Your task to perform on an android device: Open CNN.com Image 0: 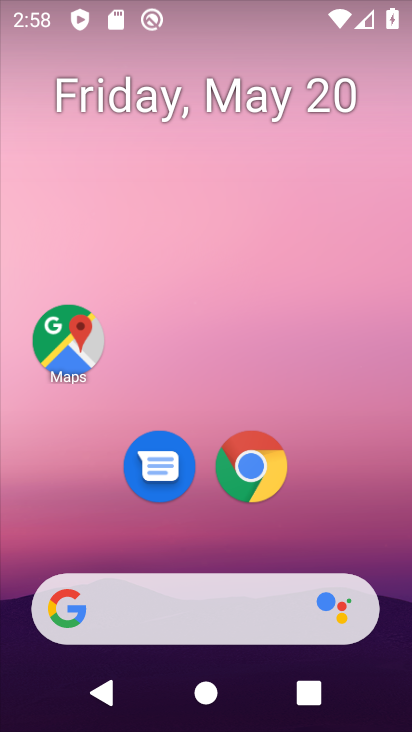
Step 0: drag from (293, 397) to (322, 183)
Your task to perform on an android device: Open CNN.com Image 1: 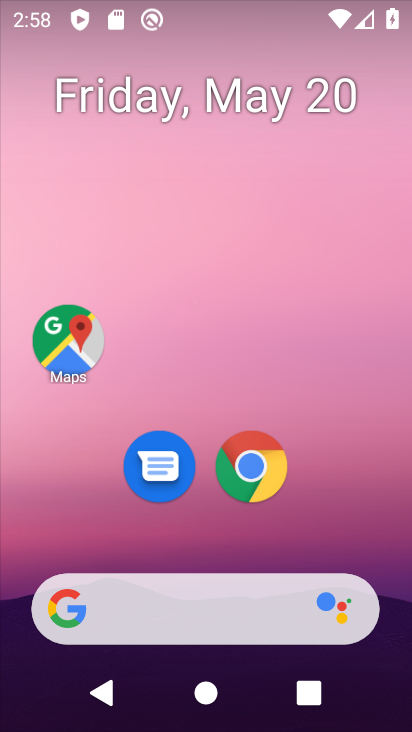
Step 1: drag from (143, 566) to (211, 97)
Your task to perform on an android device: Open CNN.com Image 2: 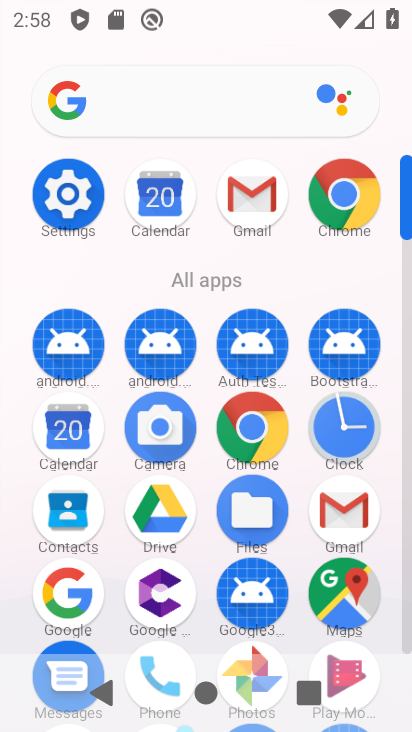
Step 2: click (62, 594)
Your task to perform on an android device: Open CNN.com Image 3: 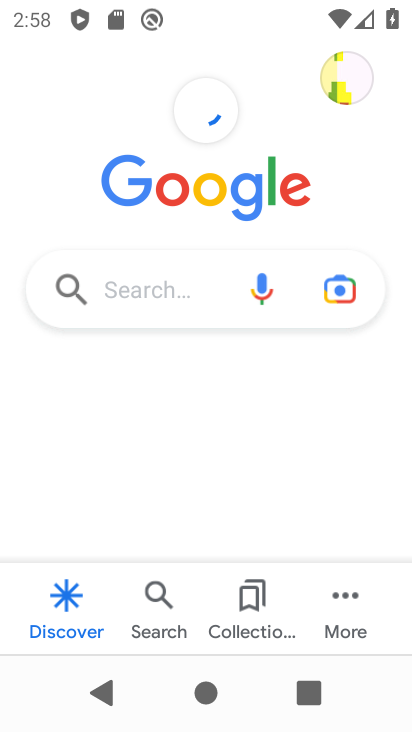
Step 3: click (126, 286)
Your task to perform on an android device: Open CNN.com Image 4: 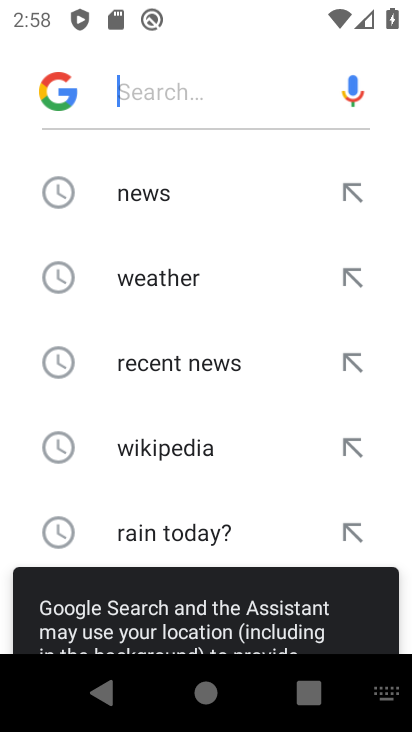
Step 4: drag from (168, 542) to (180, 214)
Your task to perform on an android device: Open CNN.com Image 5: 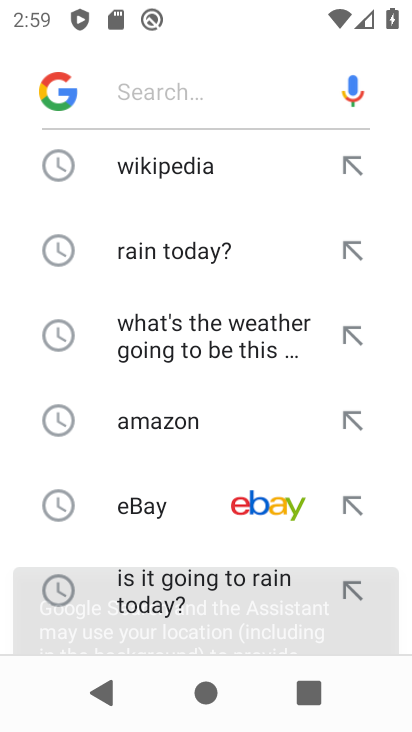
Step 5: drag from (179, 516) to (179, 217)
Your task to perform on an android device: Open CNN.com Image 6: 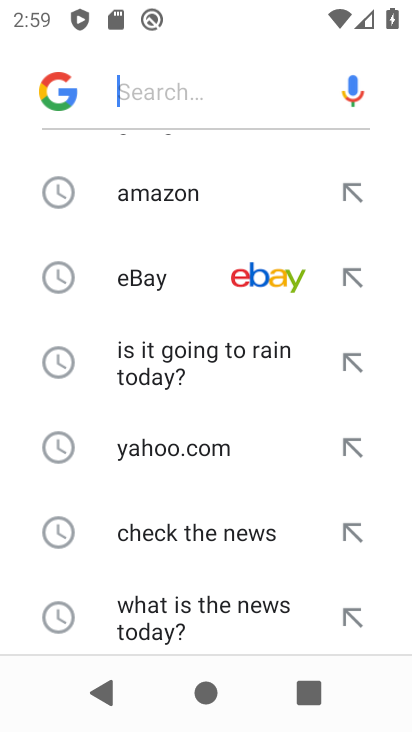
Step 6: drag from (154, 522) to (151, 216)
Your task to perform on an android device: Open CNN.com Image 7: 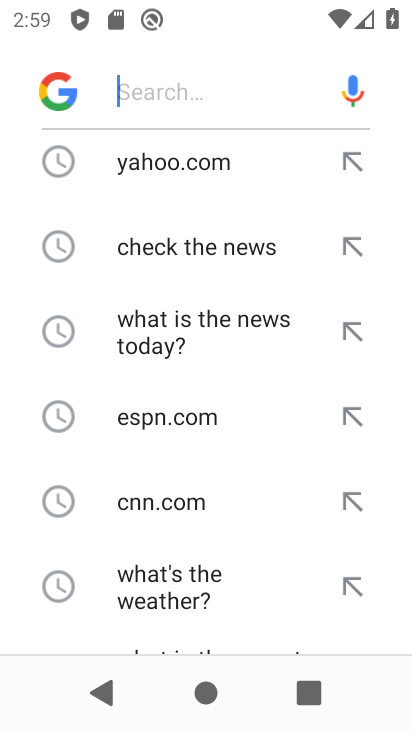
Step 7: drag from (167, 545) to (194, 283)
Your task to perform on an android device: Open CNN.com Image 8: 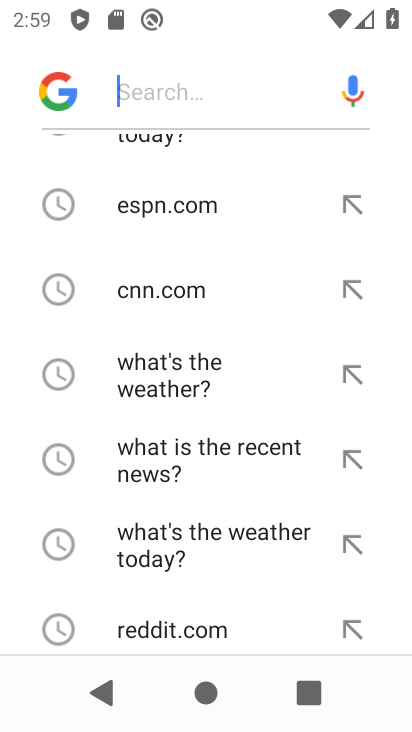
Step 8: click (174, 288)
Your task to perform on an android device: Open CNN.com Image 9: 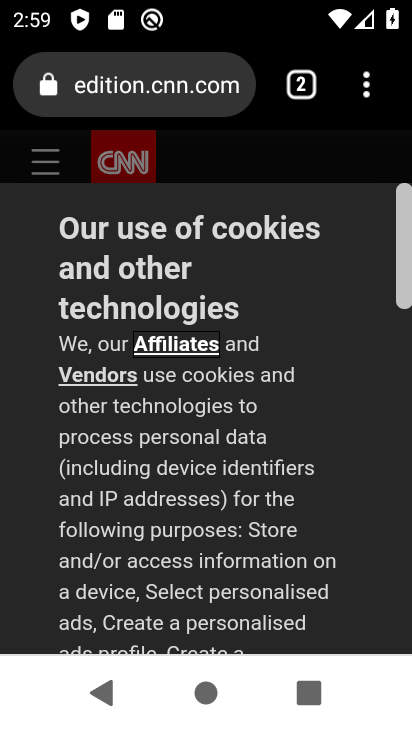
Step 9: task complete